Your task to perform on an android device: Open Chrome and go to settings Image 0: 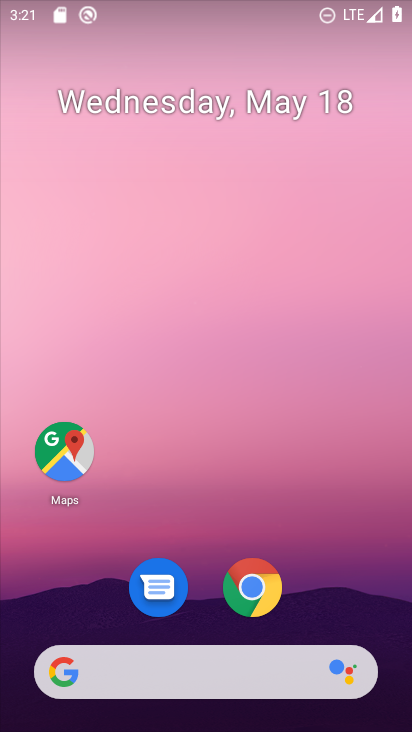
Step 0: click (257, 588)
Your task to perform on an android device: Open Chrome and go to settings Image 1: 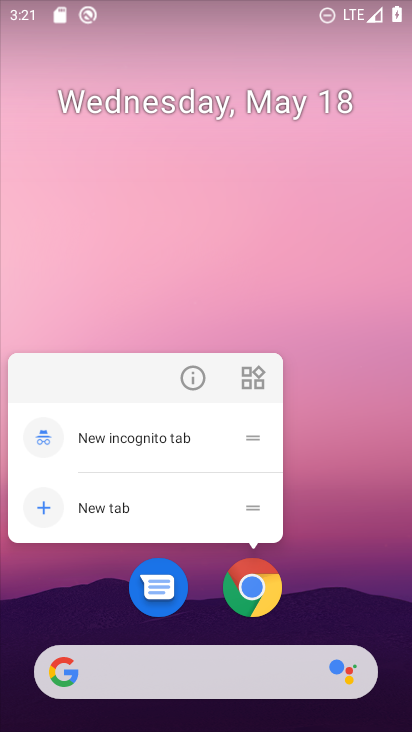
Step 1: click (257, 588)
Your task to perform on an android device: Open Chrome and go to settings Image 2: 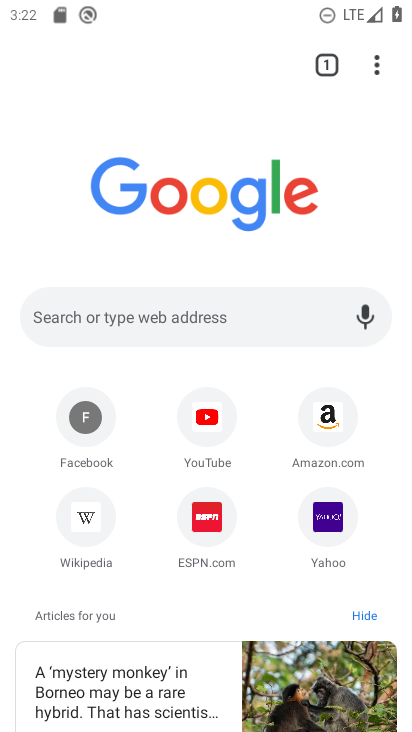
Step 2: click (365, 65)
Your task to perform on an android device: Open Chrome and go to settings Image 3: 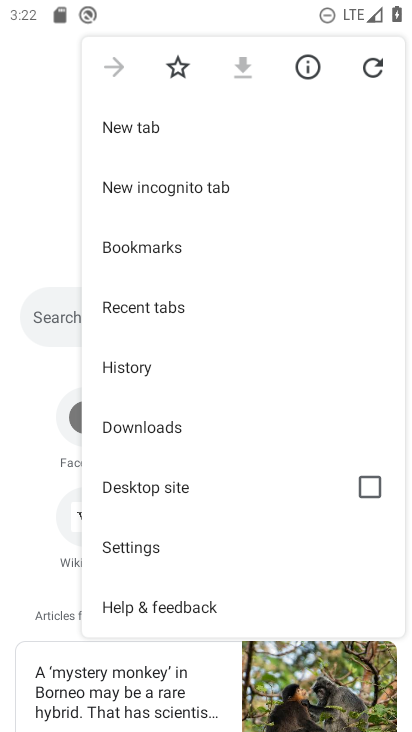
Step 3: click (147, 554)
Your task to perform on an android device: Open Chrome and go to settings Image 4: 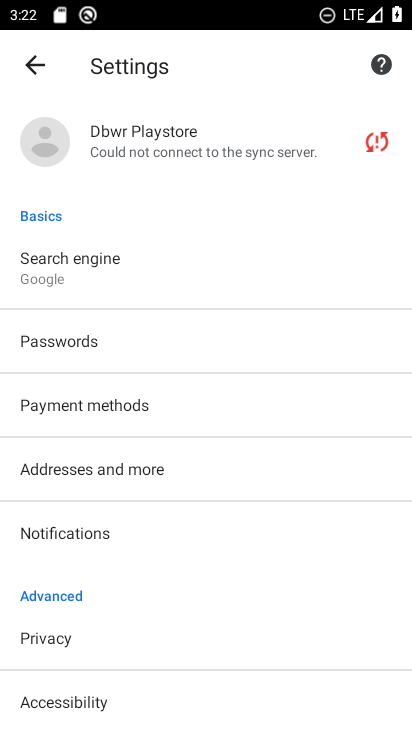
Step 4: task complete